Your task to perform on an android device: allow notifications from all sites in the chrome app Image 0: 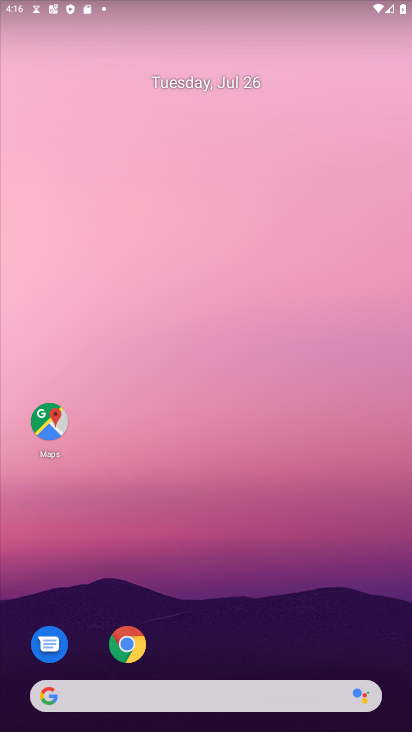
Step 0: drag from (208, 636) to (75, 16)
Your task to perform on an android device: allow notifications from all sites in the chrome app Image 1: 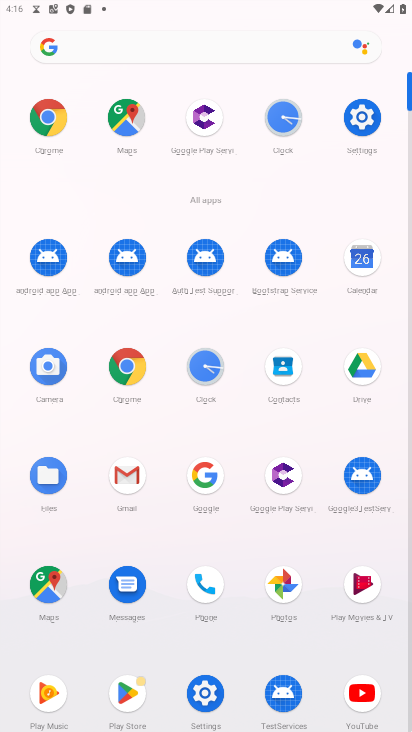
Step 1: click (40, 131)
Your task to perform on an android device: allow notifications from all sites in the chrome app Image 2: 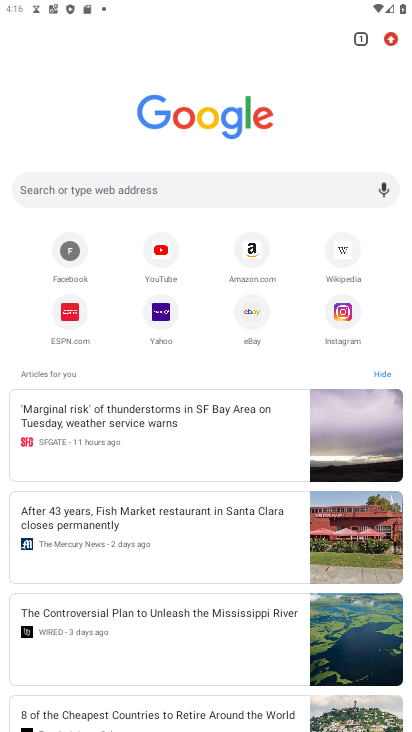
Step 2: click (392, 38)
Your task to perform on an android device: allow notifications from all sites in the chrome app Image 3: 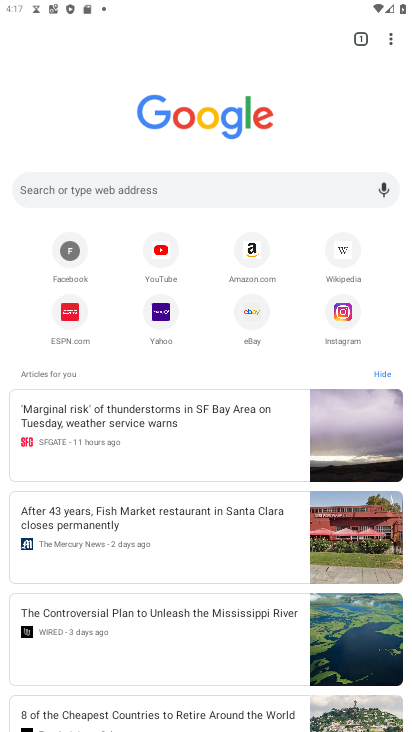
Step 3: click (389, 36)
Your task to perform on an android device: allow notifications from all sites in the chrome app Image 4: 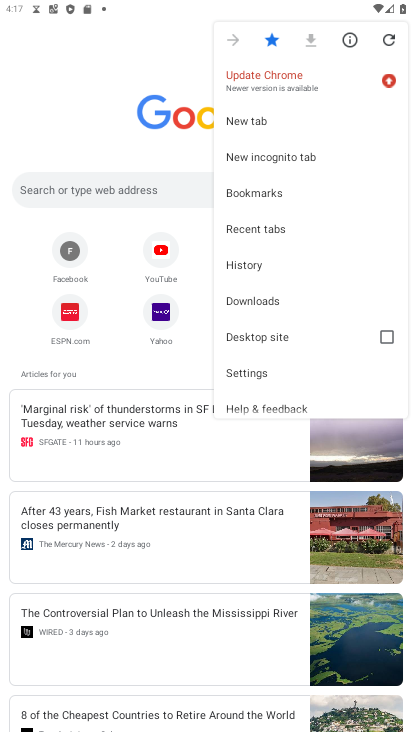
Step 4: click (288, 365)
Your task to perform on an android device: allow notifications from all sites in the chrome app Image 5: 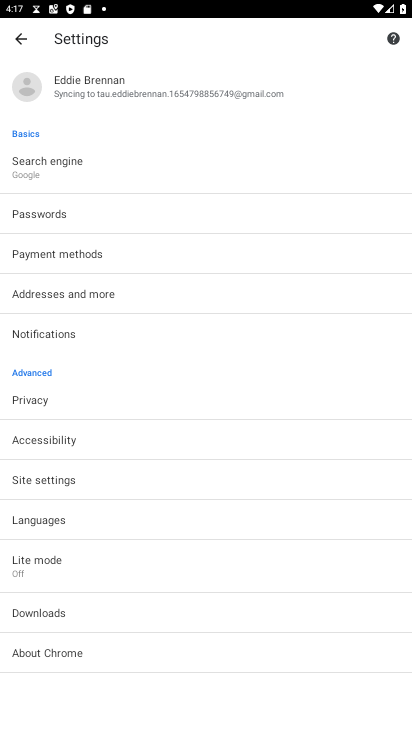
Step 5: click (131, 492)
Your task to perform on an android device: allow notifications from all sites in the chrome app Image 6: 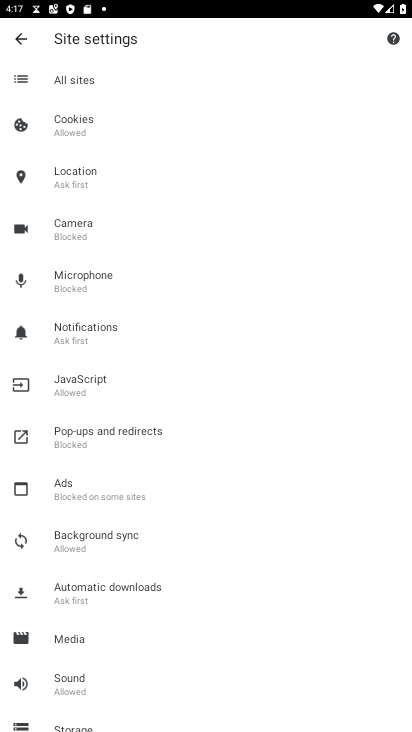
Step 6: click (173, 334)
Your task to perform on an android device: allow notifications from all sites in the chrome app Image 7: 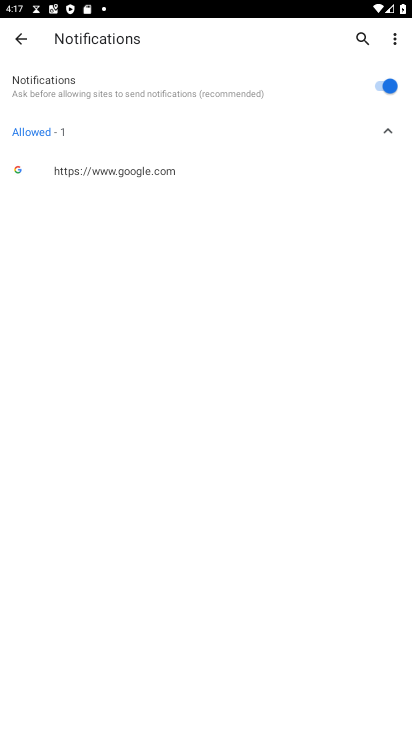
Step 7: task complete